Your task to perform on an android device: Search for seafood restaurants on Google Maps Image 0: 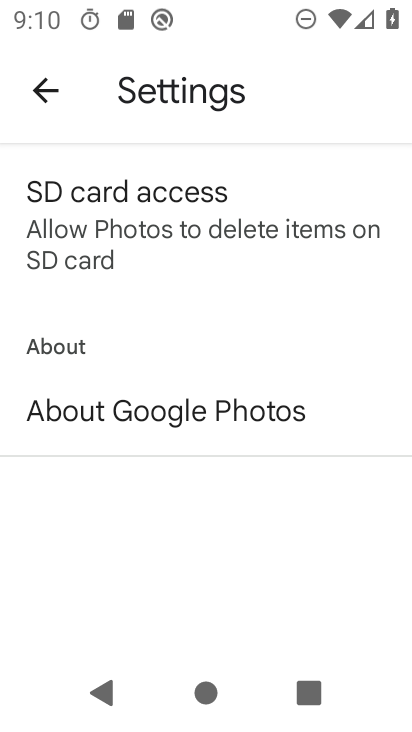
Step 0: press home button
Your task to perform on an android device: Search for seafood restaurants on Google Maps Image 1: 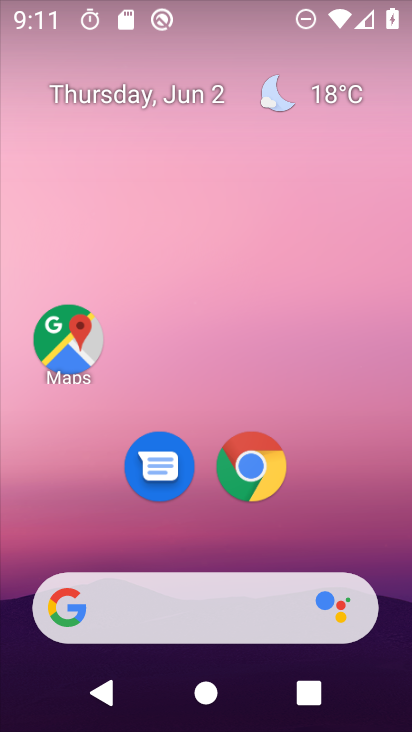
Step 1: click (77, 344)
Your task to perform on an android device: Search for seafood restaurants on Google Maps Image 2: 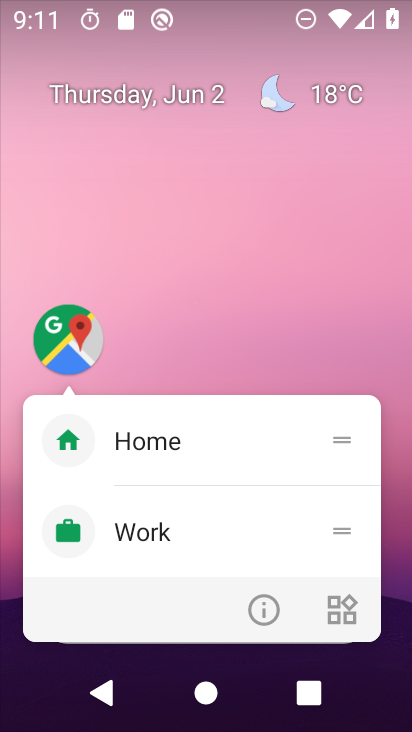
Step 2: click (77, 344)
Your task to perform on an android device: Search for seafood restaurants on Google Maps Image 3: 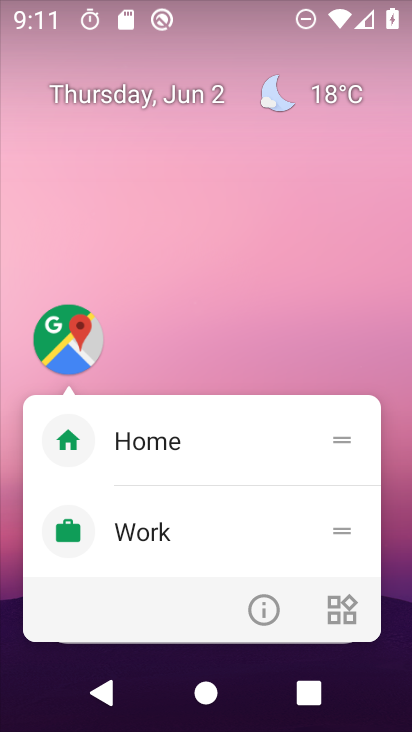
Step 3: click (78, 345)
Your task to perform on an android device: Search for seafood restaurants on Google Maps Image 4: 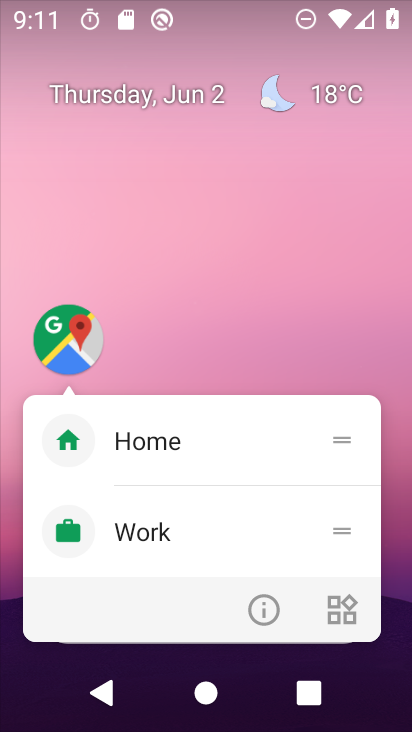
Step 4: click (84, 347)
Your task to perform on an android device: Search for seafood restaurants on Google Maps Image 5: 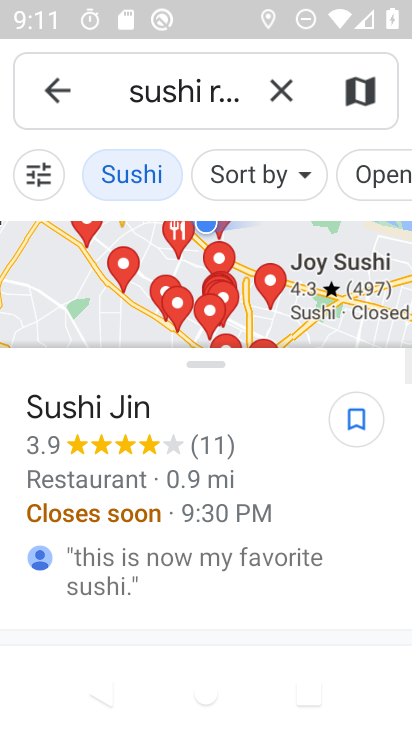
Step 5: click (280, 84)
Your task to perform on an android device: Search for seafood restaurants on Google Maps Image 6: 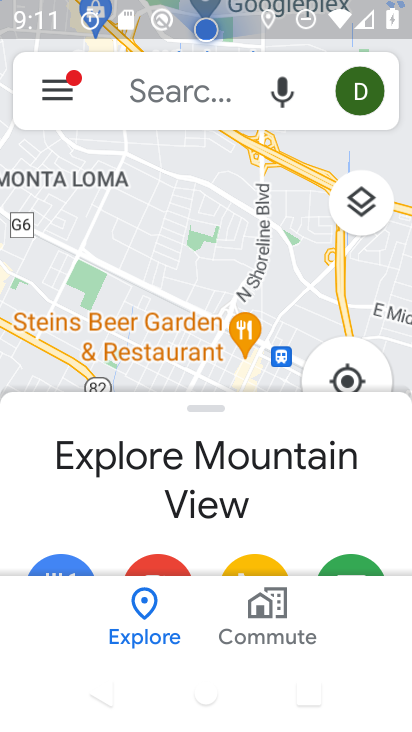
Step 6: click (204, 66)
Your task to perform on an android device: Search for seafood restaurants on Google Maps Image 7: 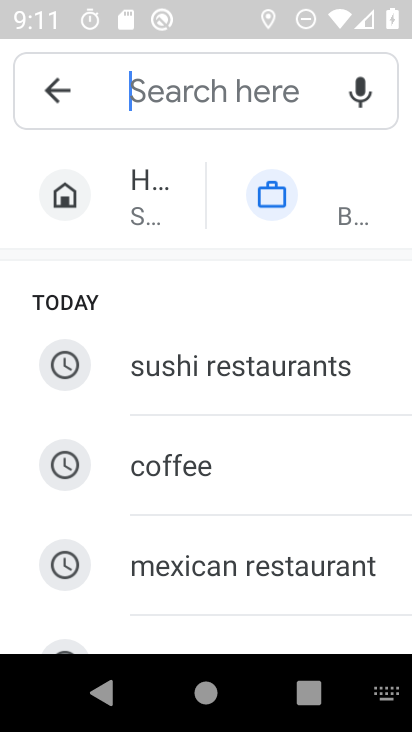
Step 7: type "seafood restaurants "
Your task to perform on an android device: Search for seafood restaurants on Google Maps Image 8: 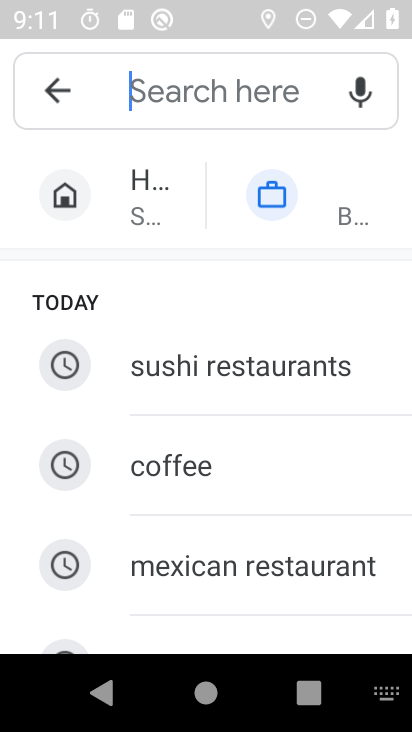
Step 8: click (221, 95)
Your task to perform on an android device: Search for seafood restaurants on Google Maps Image 9: 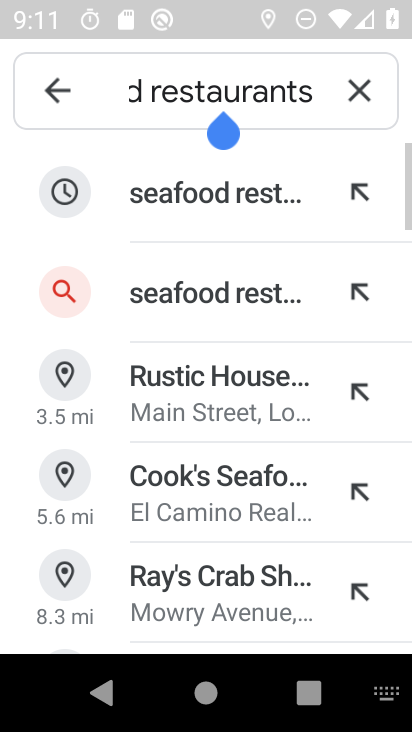
Step 9: click (195, 193)
Your task to perform on an android device: Search for seafood restaurants on Google Maps Image 10: 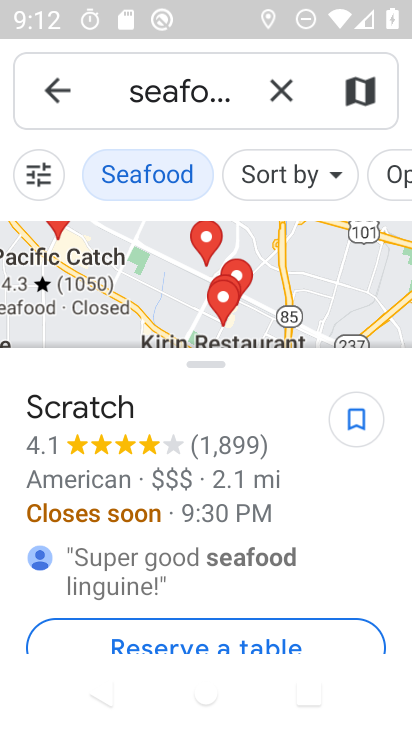
Step 10: task complete